Your task to perform on an android device: set an alarm Image 0: 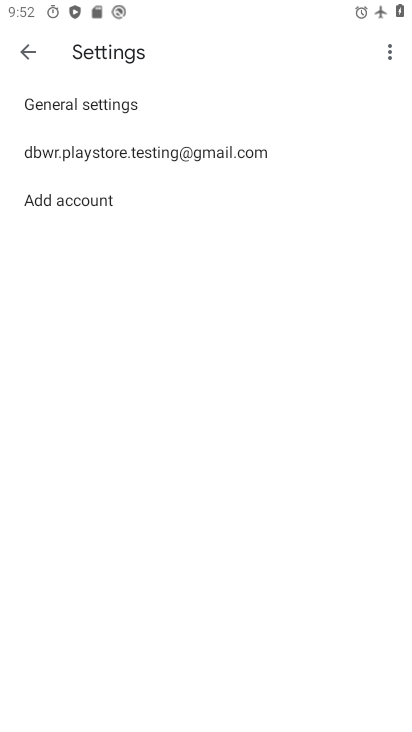
Step 0: press back button
Your task to perform on an android device: set an alarm Image 1: 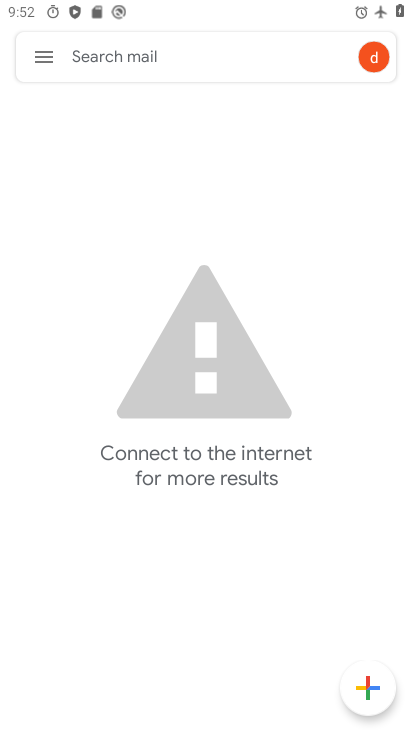
Step 1: press home button
Your task to perform on an android device: set an alarm Image 2: 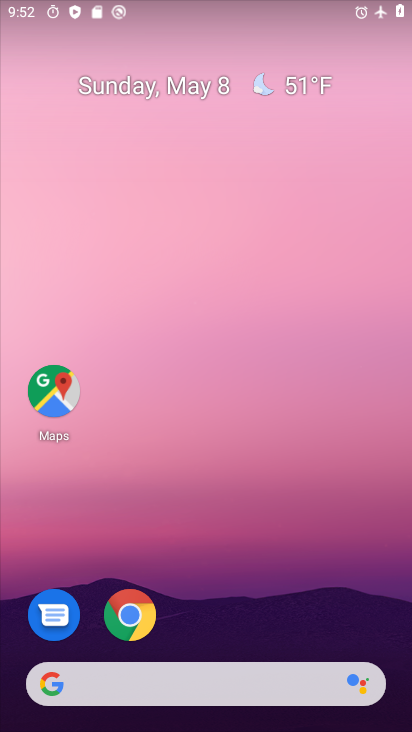
Step 2: drag from (241, 538) to (184, 118)
Your task to perform on an android device: set an alarm Image 3: 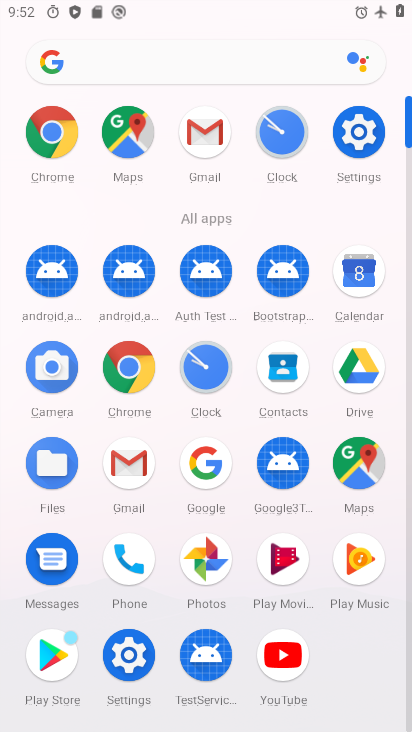
Step 3: click (263, 145)
Your task to perform on an android device: set an alarm Image 4: 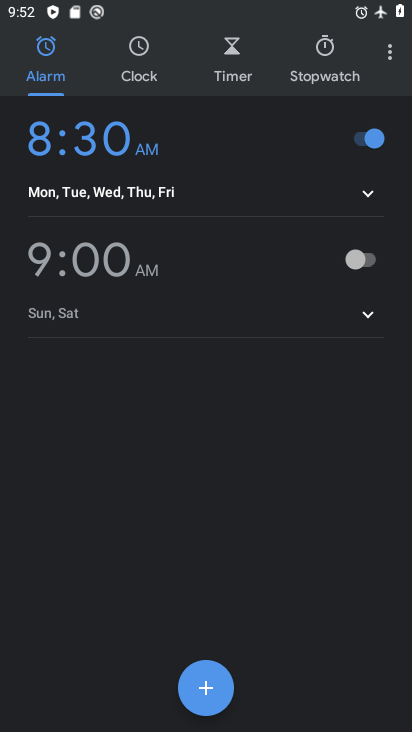
Step 4: click (370, 265)
Your task to perform on an android device: set an alarm Image 5: 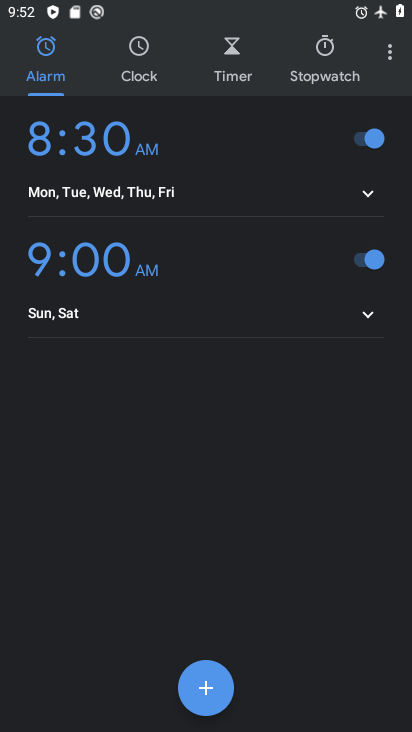
Step 5: task complete